Your task to perform on an android device: Play the last video I watched on Youtube Image 0: 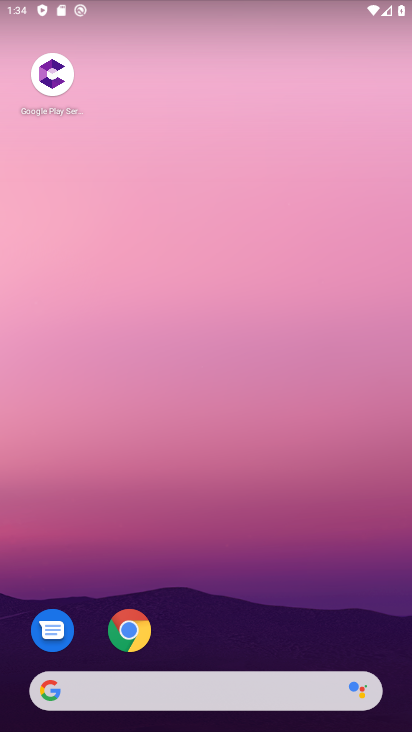
Step 0: drag from (349, 596) to (348, 90)
Your task to perform on an android device: Play the last video I watched on Youtube Image 1: 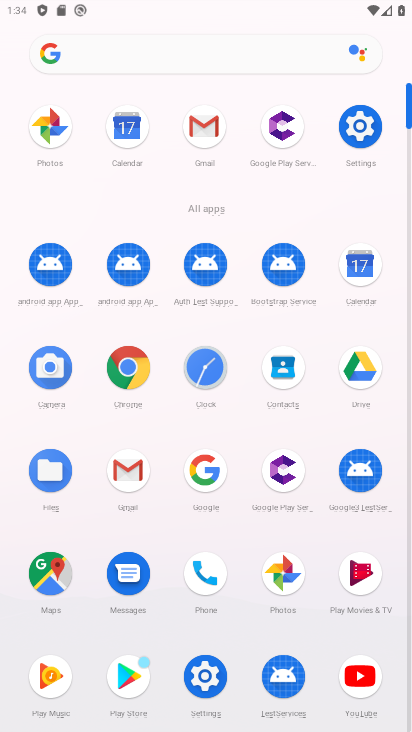
Step 1: click (358, 682)
Your task to perform on an android device: Play the last video I watched on Youtube Image 2: 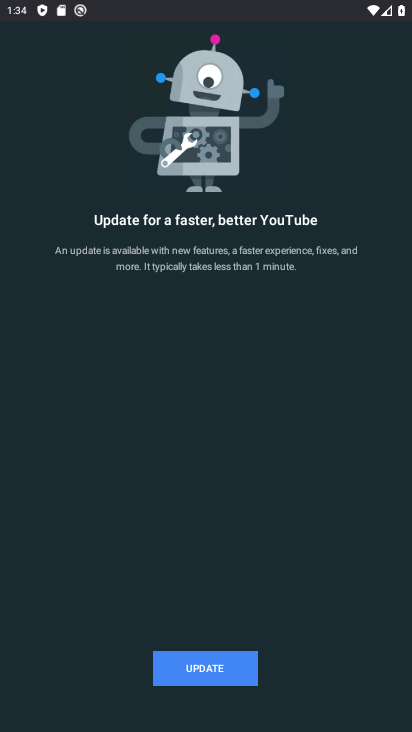
Step 2: click (256, 675)
Your task to perform on an android device: Play the last video I watched on Youtube Image 3: 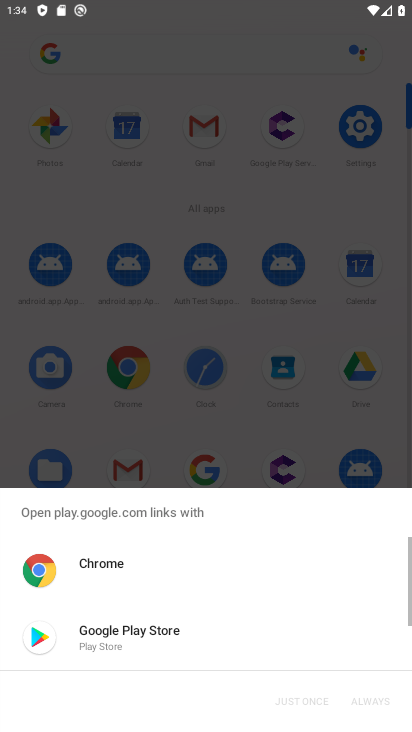
Step 3: click (156, 643)
Your task to perform on an android device: Play the last video I watched on Youtube Image 4: 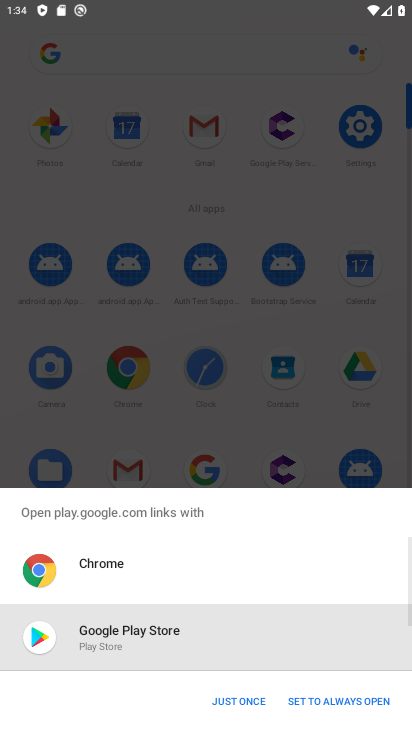
Step 4: click (221, 704)
Your task to perform on an android device: Play the last video I watched on Youtube Image 5: 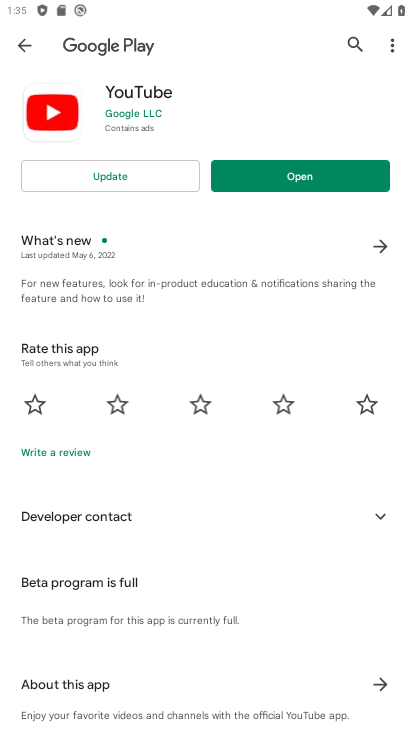
Step 5: click (136, 176)
Your task to perform on an android device: Play the last video I watched on Youtube Image 6: 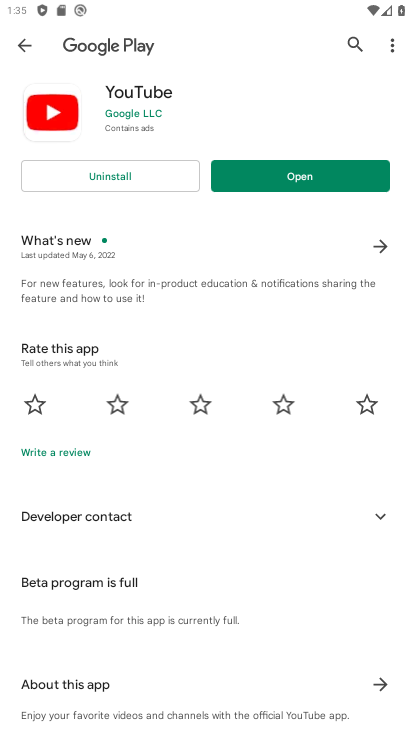
Step 6: click (289, 170)
Your task to perform on an android device: Play the last video I watched on Youtube Image 7: 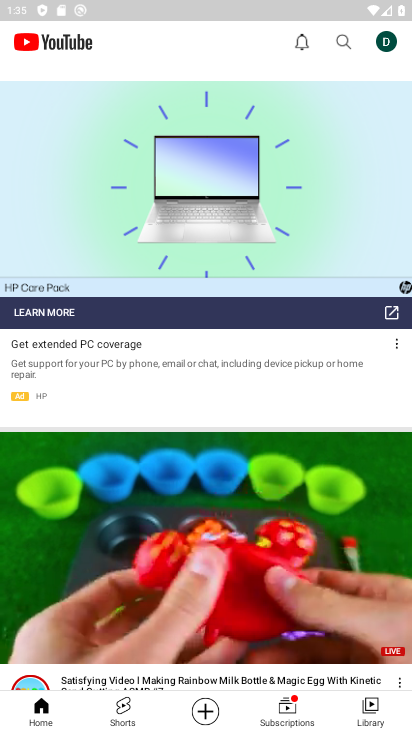
Step 7: click (370, 703)
Your task to perform on an android device: Play the last video I watched on Youtube Image 8: 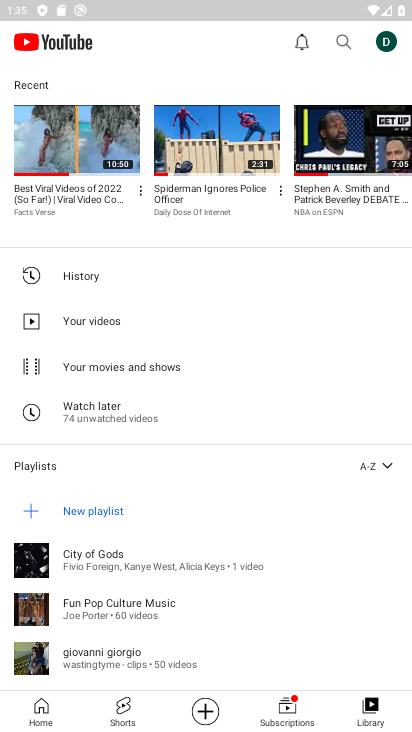
Step 8: task complete